Your task to perform on an android device: Open ESPN.com Image 0: 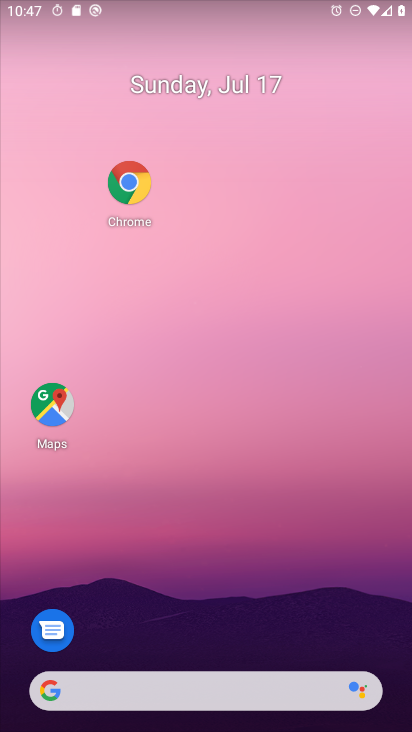
Step 0: drag from (265, 592) to (52, 13)
Your task to perform on an android device: Open ESPN.com Image 1: 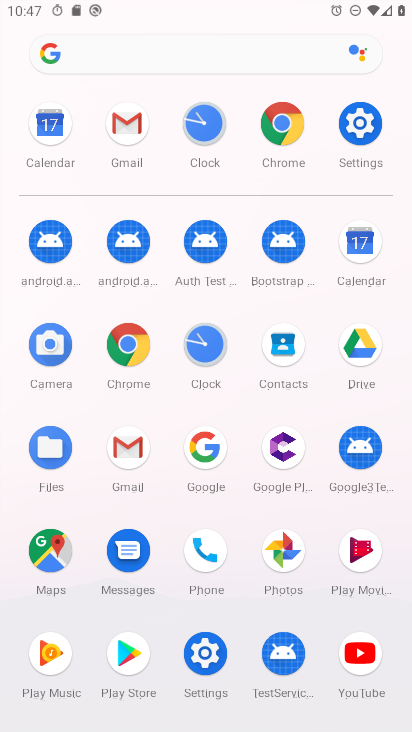
Step 1: click (276, 125)
Your task to perform on an android device: Open ESPN.com Image 2: 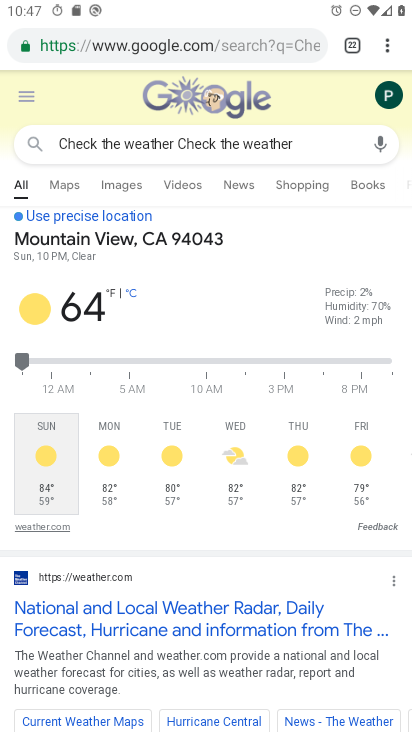
Step 2: click (392, 55)
Your task to perform on an android device: Open ESPN.com Image 3: 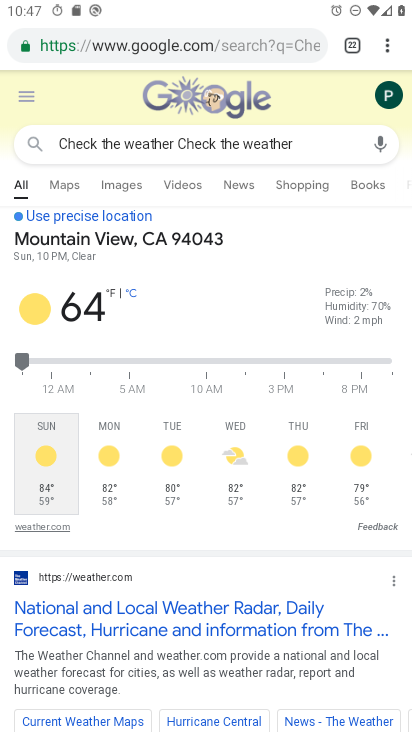
Step 3: click (392, 31)
Your task to perform on an android device: Open ESPN.com Image 4: 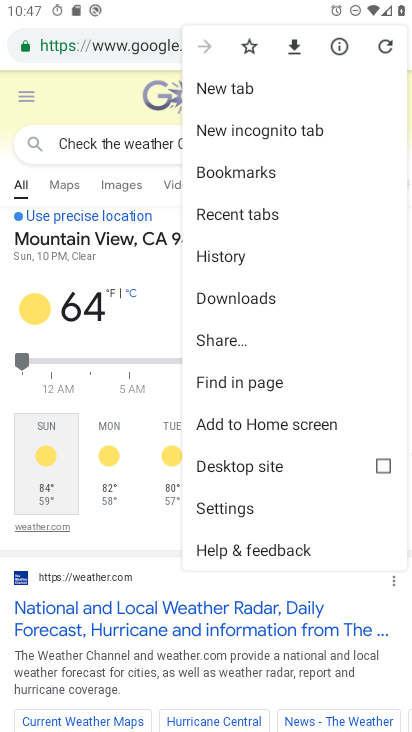
Step 4: click (392, 44)
Your task to perform on an android device: Open ESPN.com Image 5: 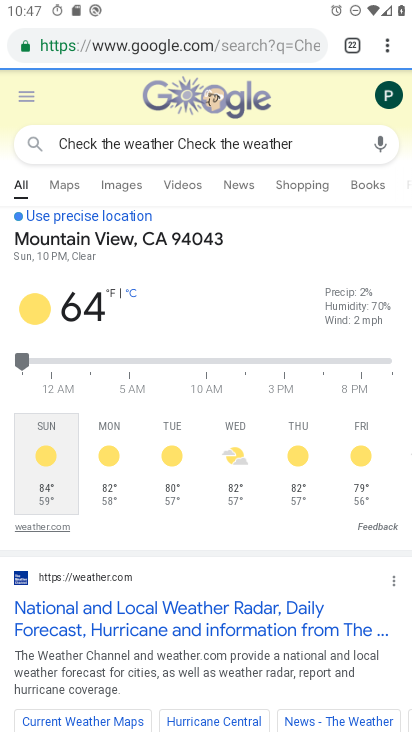
Step 5: click (383, 43)
Your task to perform on an android device: Open ESPN.com Image 6: 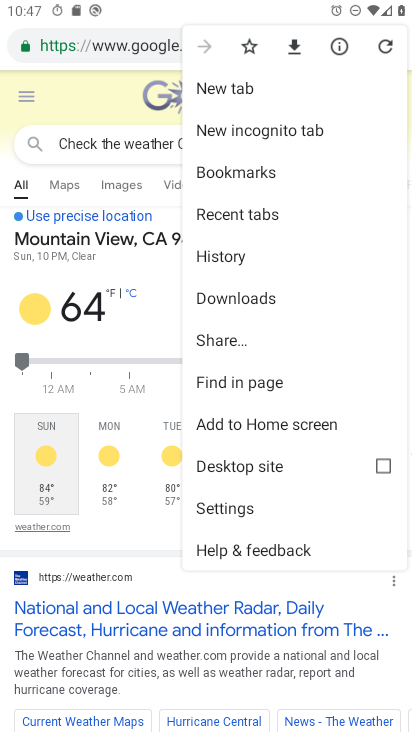
Step 6: click (234, 99)
Your task to perform on an android device: Open ESPN.com Image 7: 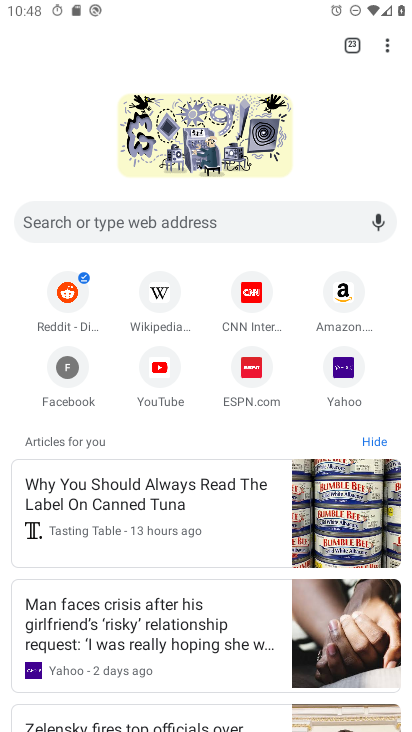
Step 7: click (245, 365)
Your task to perform on an android device: Open ESPN.com Image 8: 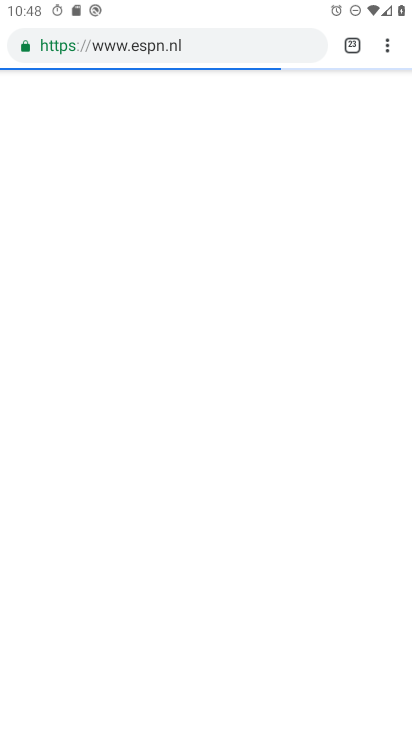
Step 8: task complete